Your task to perform on an android device: Go to wifi settings Image 0: 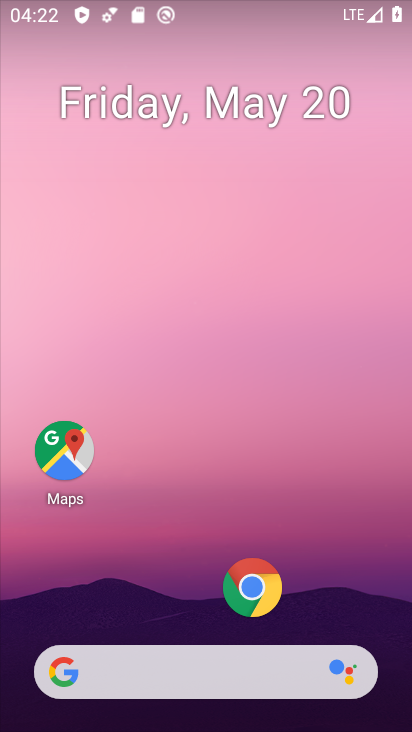
Step 0: drag from (200, 9) to (251, 657)
Your task to perform on an android device: Go to wifi settings Image 1: 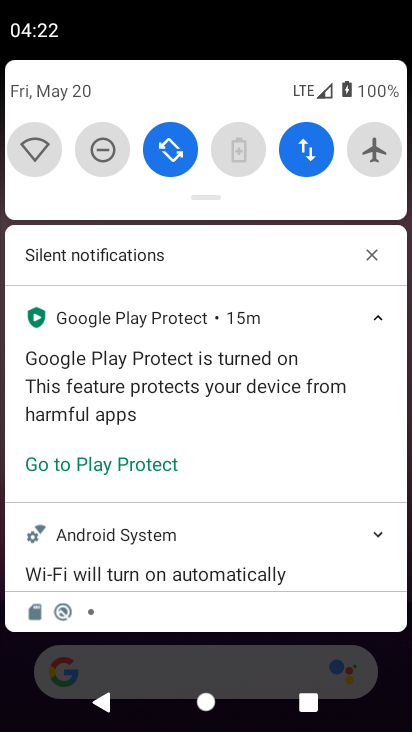
Step 1: click (44, 154)
Your task to perform on an android device: Go to wifi settings Image 2: 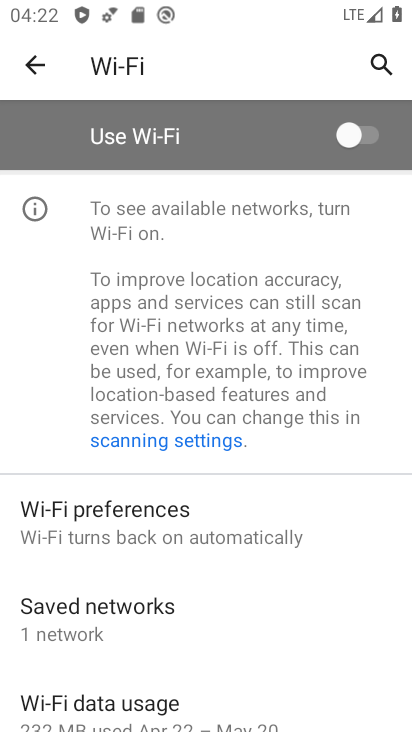
Step 2: task complete